Your task to perform on an android device: open sync settings in chrome Image 0: 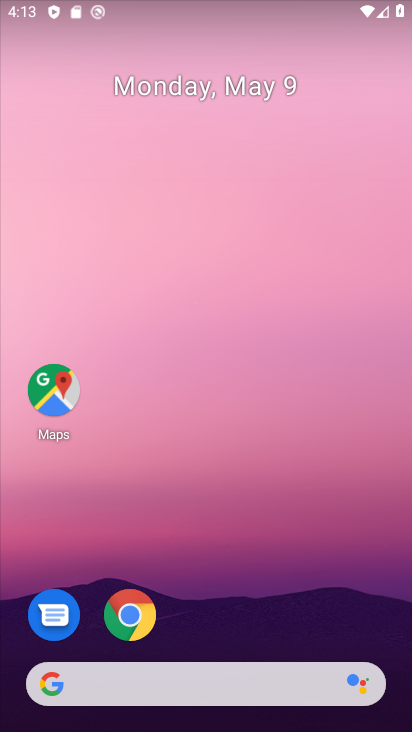
Step 0: drag from (0, 287) to (398, 273)
Your task to perform on an android device: open sync settings in chrome Image 1: 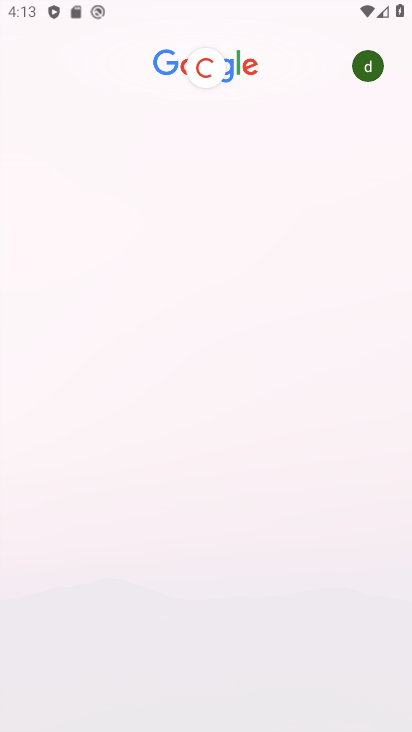
Step 1: press home button
Your task to perform on an android device: open sync settings in chrome Image 2: 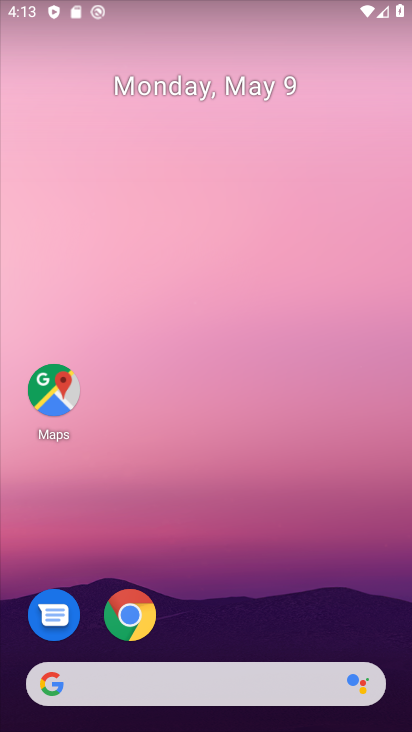
Step 2: click (152, 606)
Your task to perform on an android device: open sync settings in chrome Image 3: 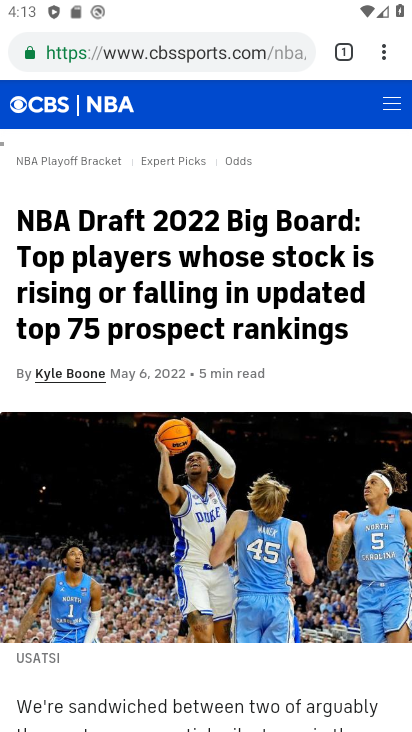
Step 3: drag from (381, 49) to (342, 627)
Your task to perform on an android device: open sync settings in chrome Image 4: 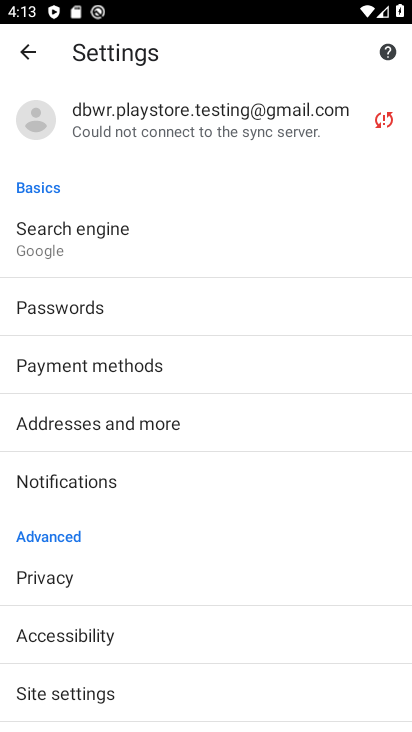
Step 4: click (228, 182)
Your task to perform on an android device: open sync settings in chrome Image 5: 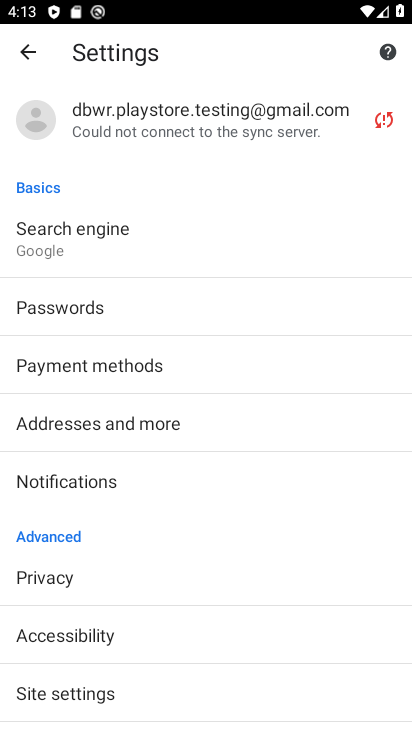
Step 5: click (245, 116)
Your task to perform on an android device: open sync settings in chrome Image 6: 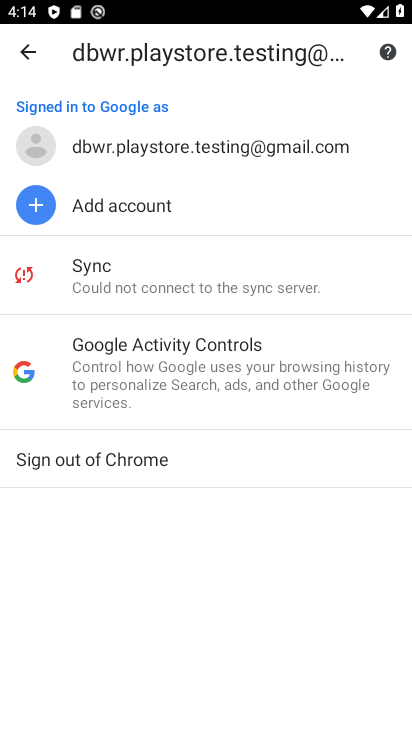
Step 6: click (315, 276)
Your task to perform on an android device: open sync settings in chrome Image 7: 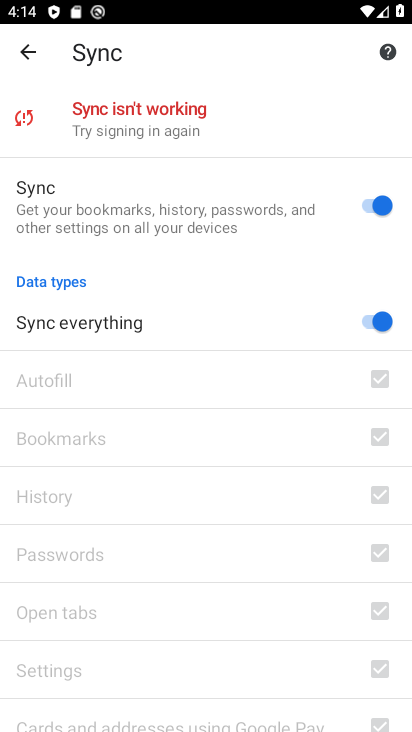
Step 7: task complete